Your task to perform on an android device: Clear the cart on newegg. Search for "dell alienware" on newegg, select the first entry, and add it to the cart. Image 0: 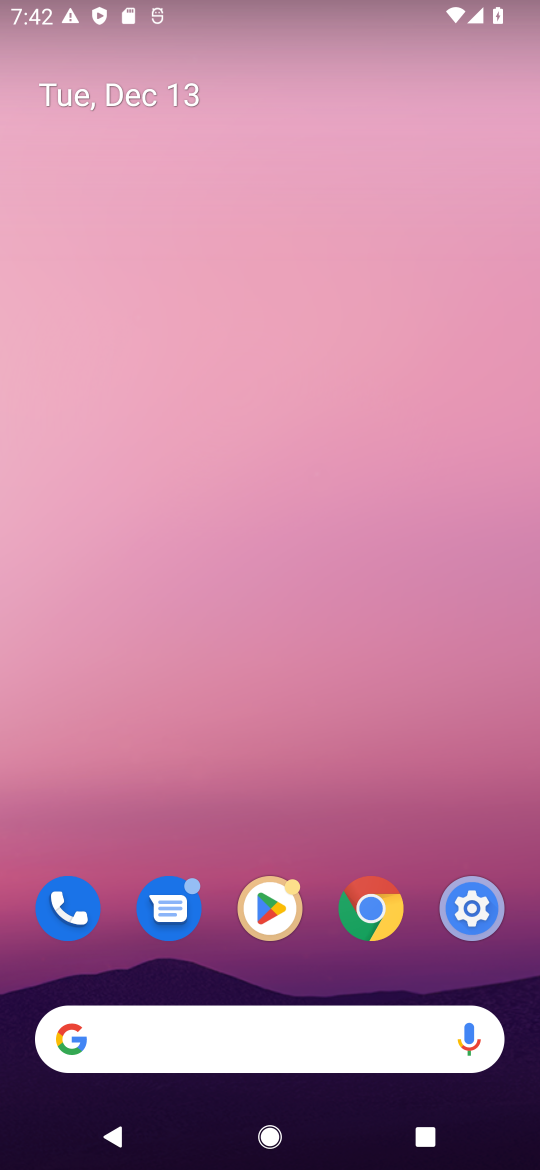
Step 0: press home button
Your task to perform on an android device: Clear the cart on newegg. Search for "dell alienware" on newegg, select the first entry, and add it to the cart. Image 1: 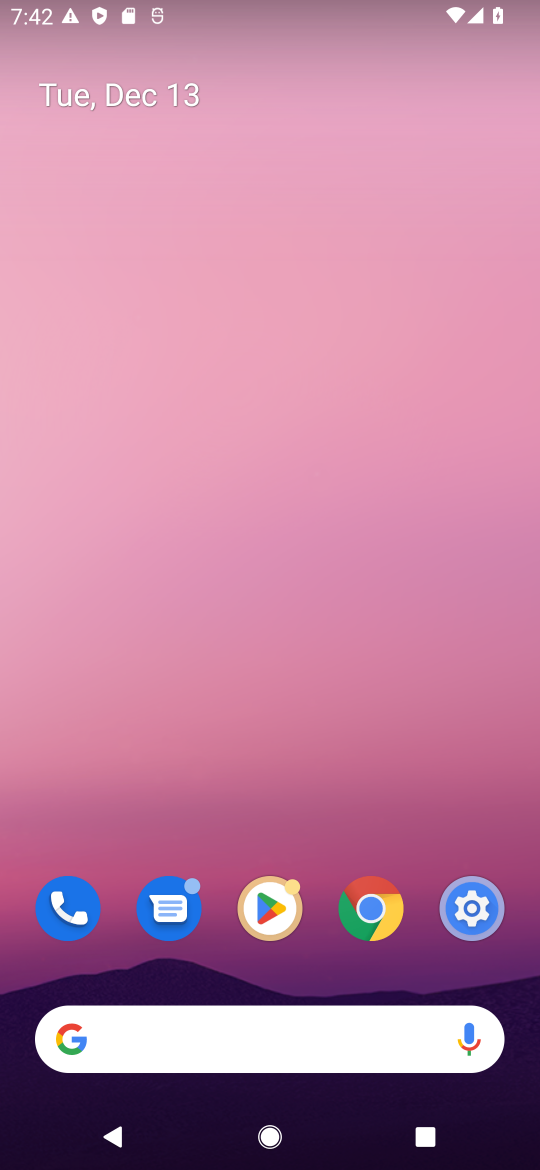
Step 1: click (104, 1036)
Your task to perform on an android device: Clear the cart on newegg. Search for "dell alienware" on newegg, select the first entry, and add it to the cart. Image 2: 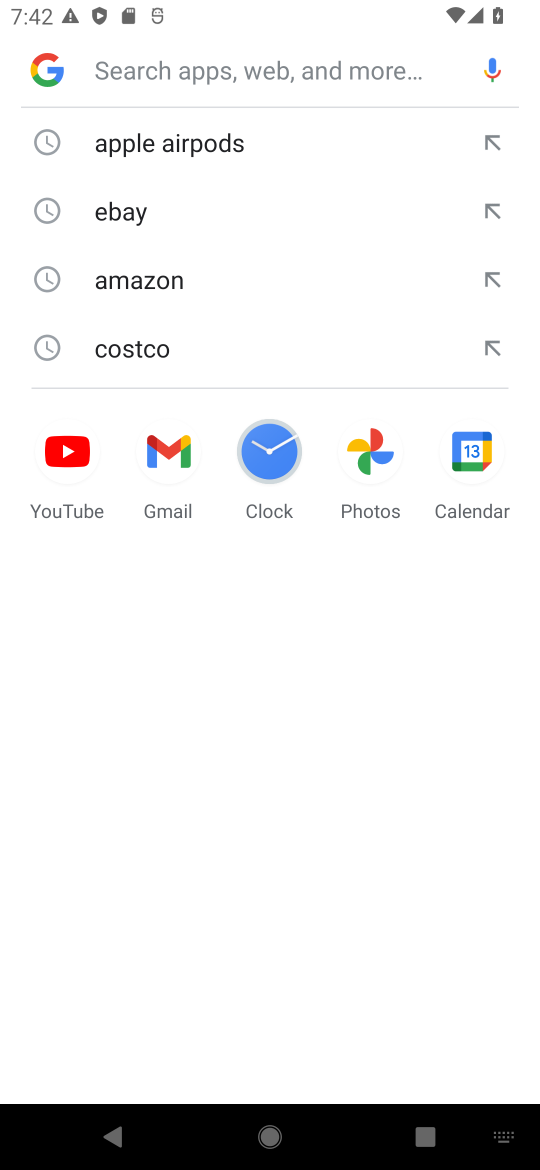
Step 2: type "newegg"
Your task to perform on an android device: Clear the cart on newegg. Search for "dell alienware" on newegg, select the first entry, and add it to the cart. Image 3: 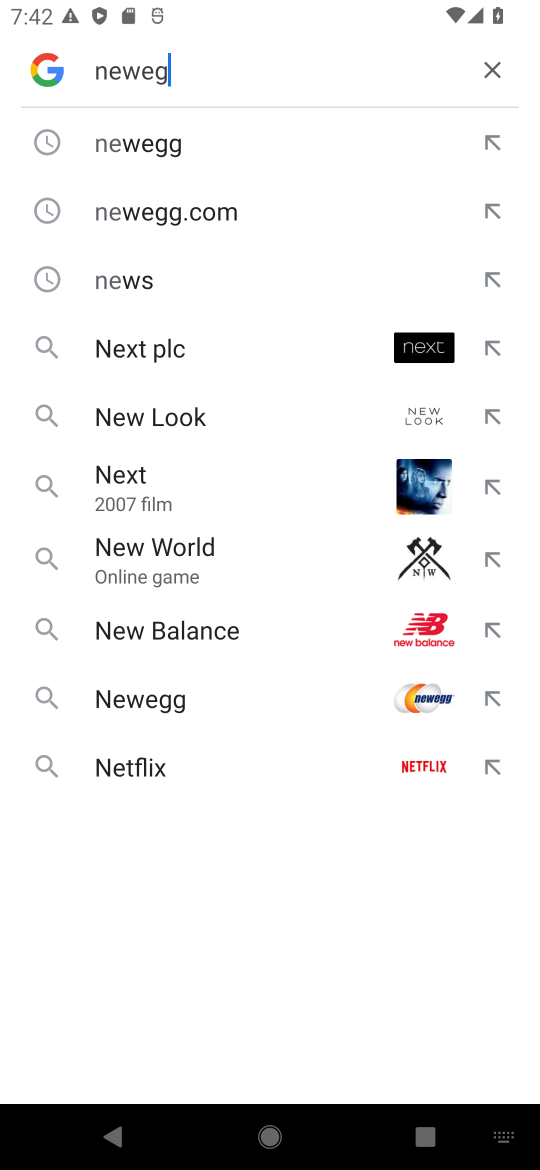
Step 3: press enter
Your task to perform on an android device: Clear the cart on newegg. Search for "dell alienware" on newegg, select the first entry, and add it to the cart. Image 4: 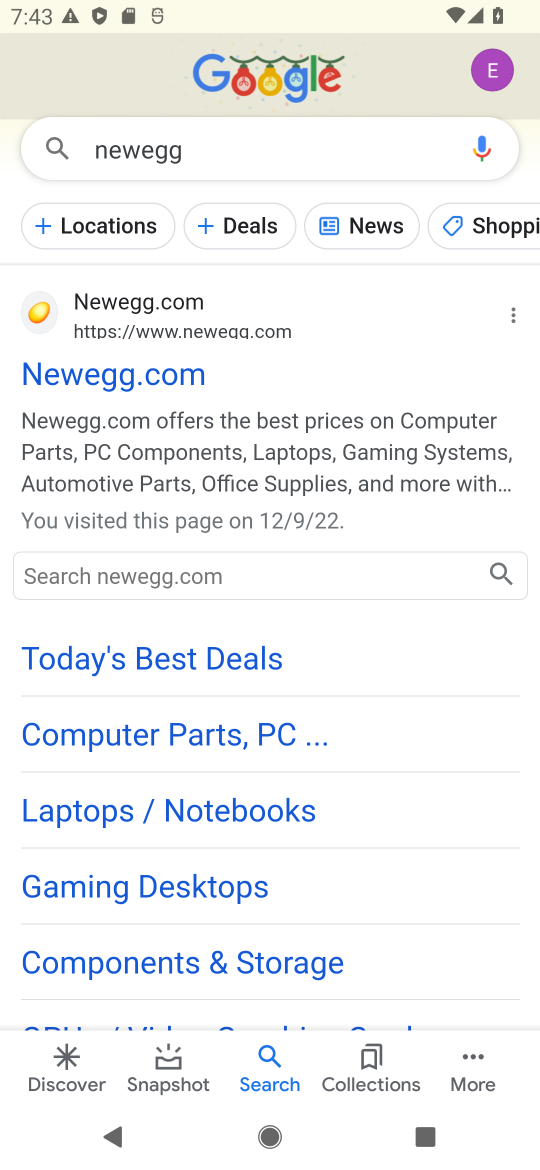
Step 4: click (132, 364)
Your task to perform on an android device: Clear the cart on newegg. Search for "dell alienware" on newegg, select the first entry, and add it to the cart. Image 5: 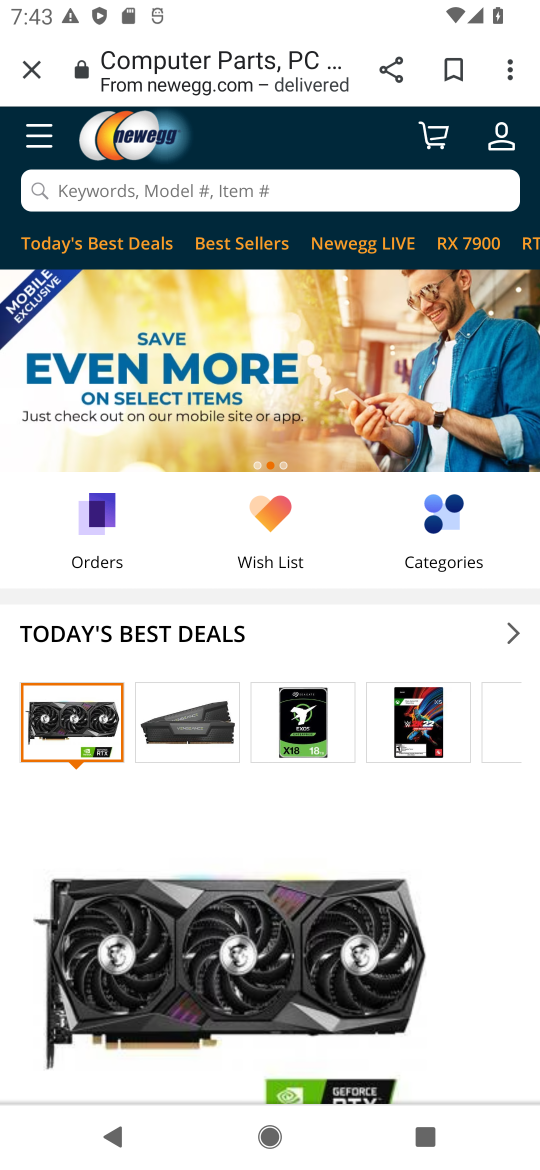
Step 5: click (426, 134)
Your task to perform on an android device: Clear the cart on newegg. Search for "dell alienware" on newegg, select the first entry, and add it to the cart. Image 6: 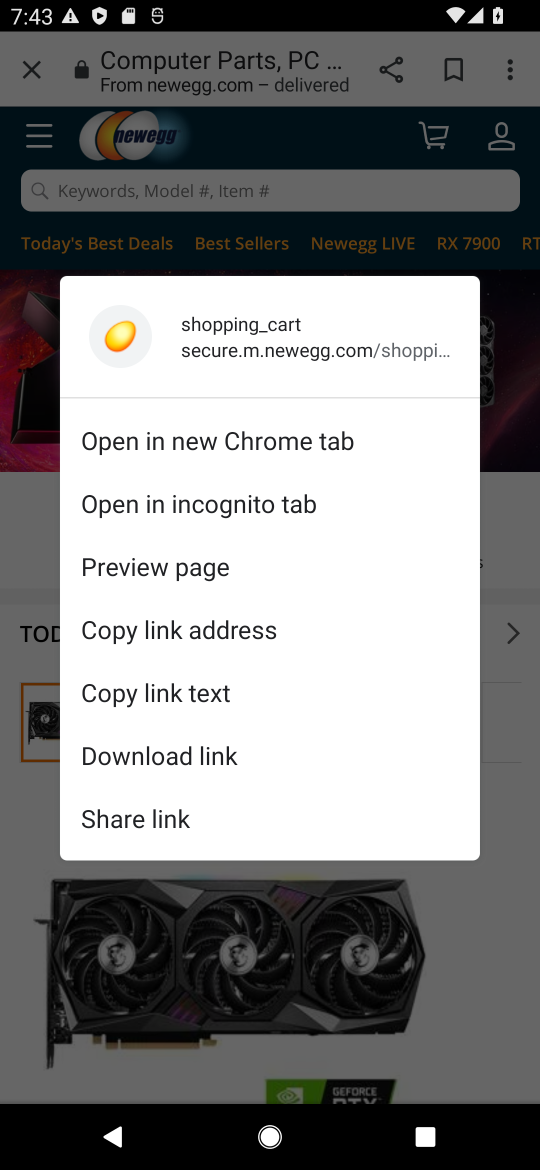
Step 6: click (514, 735)
Your task to perform on an android device: Clear the cart on newegg. Search for "dell alienware" on newegg, select the first entry, and add it to the cart. Image 7: 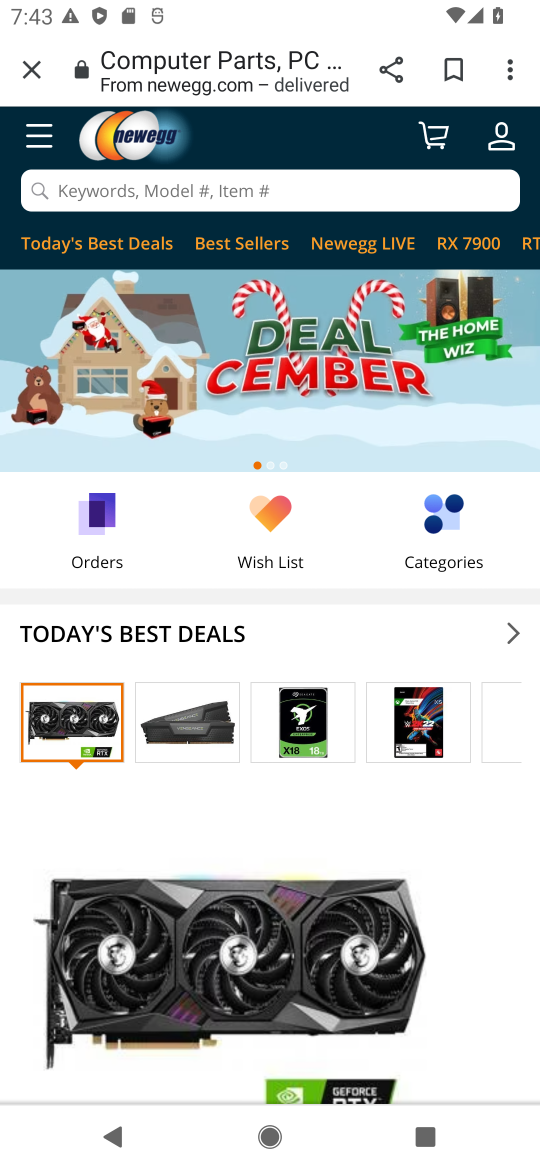
Step 7: click (439, 129)
Your task to perform on an android device: Clear the cart on newegg. Search for "dell alienware" on newegg, select the first entry, and add it to the cart. Image 8: 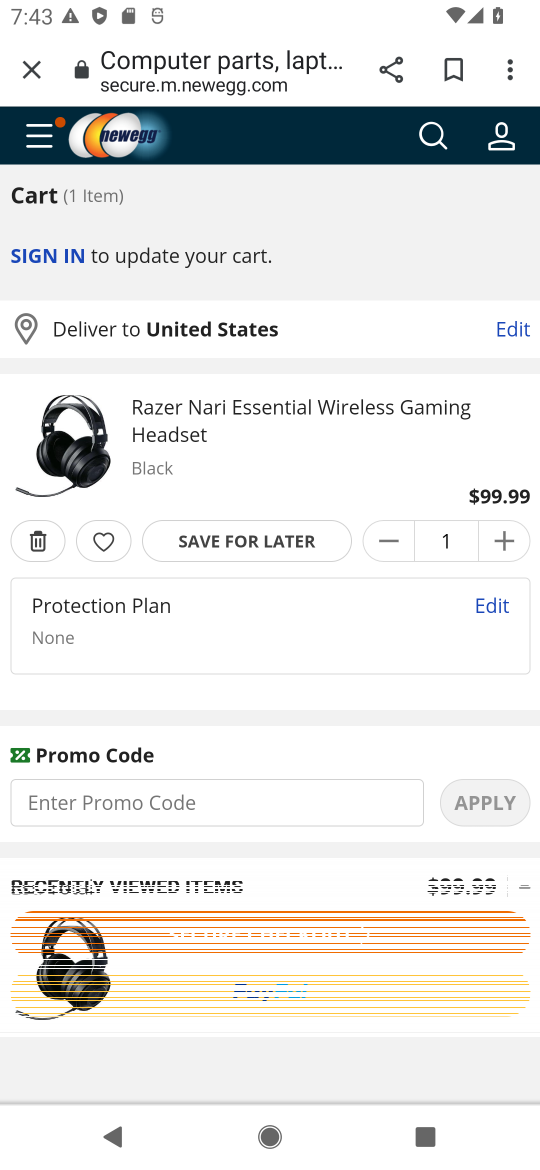
Step 8: click (37, 531)
Your task to perform on an android device: Clear the cart on newegg. Search for "dell alienware" on newegg, select the first entry, and add it to the cart. Image 9: 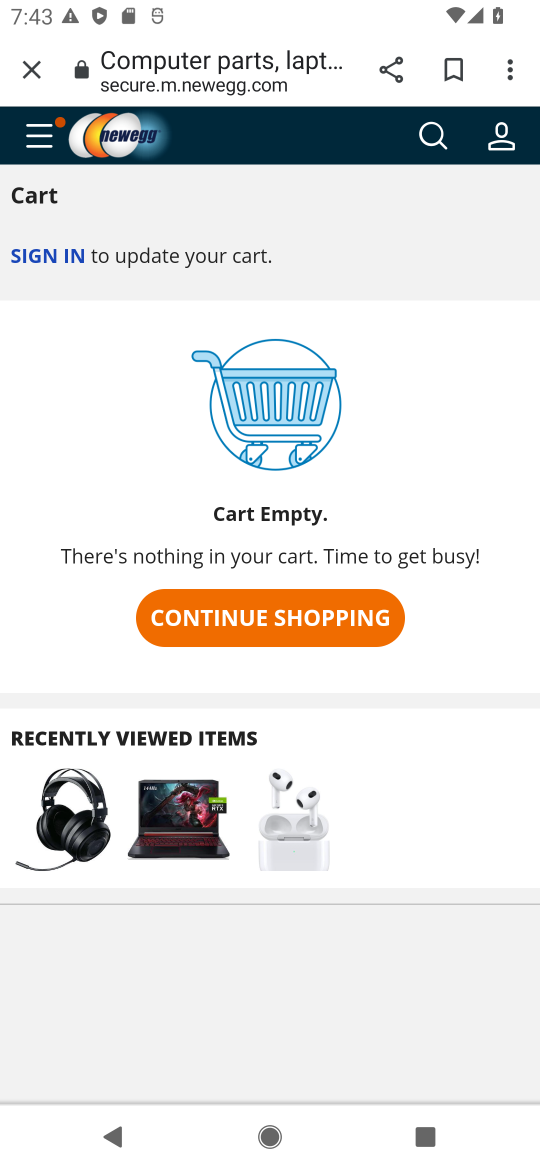
Step 9: click (412, 131)
Your task to perform on an android device: Clear the cart on newegg. Search for "dell alienware" on newegg, select the first entry, and add it to the cart. Image 10: 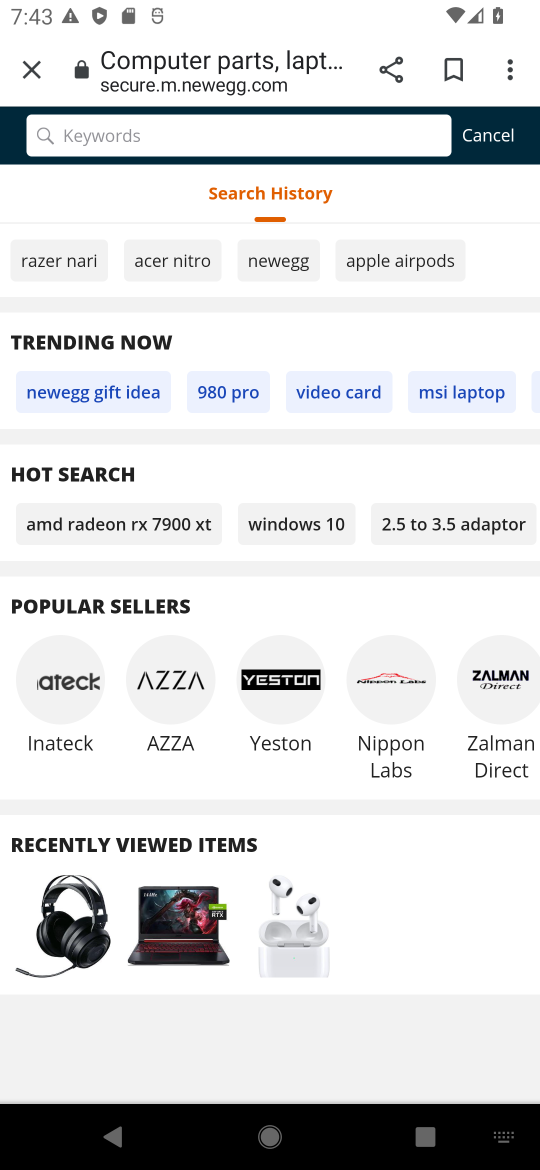
Step 10: type "dell alienware"
Your task to perform on an android device: Clear the cart on newegg. Search for "dell alienware" on newegg, select the first entry, and add it to the cart. Image 11: 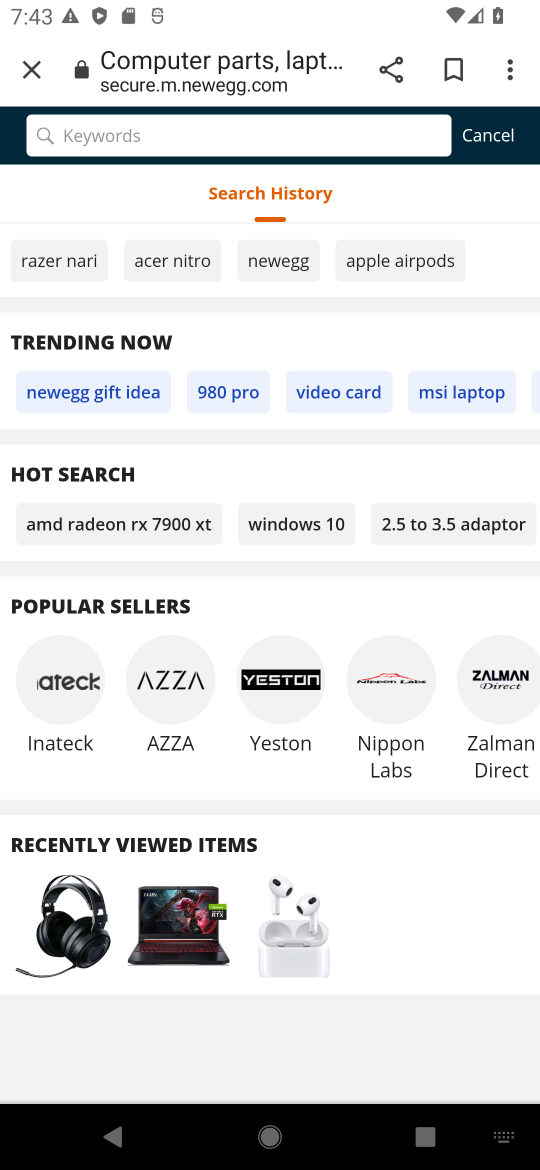
Step 11: press enter
Your task to perform on an android device: Clear the cart on newegg. Search for "dell alienware" on newegg, select the first entry, and add it to the cart. Image 12: 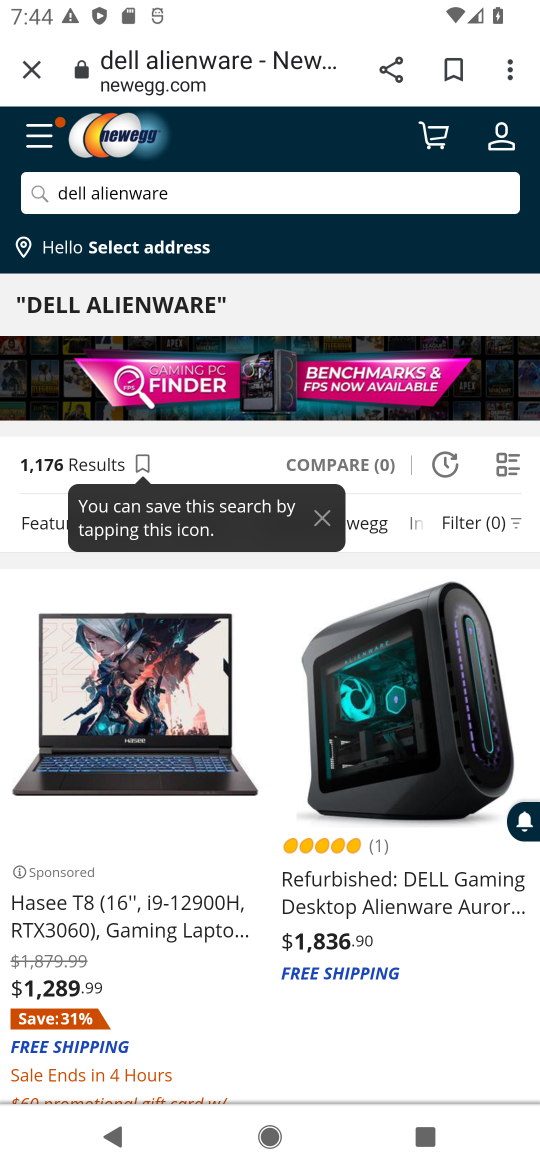
Step 12: drag from (336, 940) to (374, 529)
Your task to perform on an android device: Clear the cart on newegg. Search for "dell alienware" on newegg, select the first entry, and add it to the cart. Image 13: 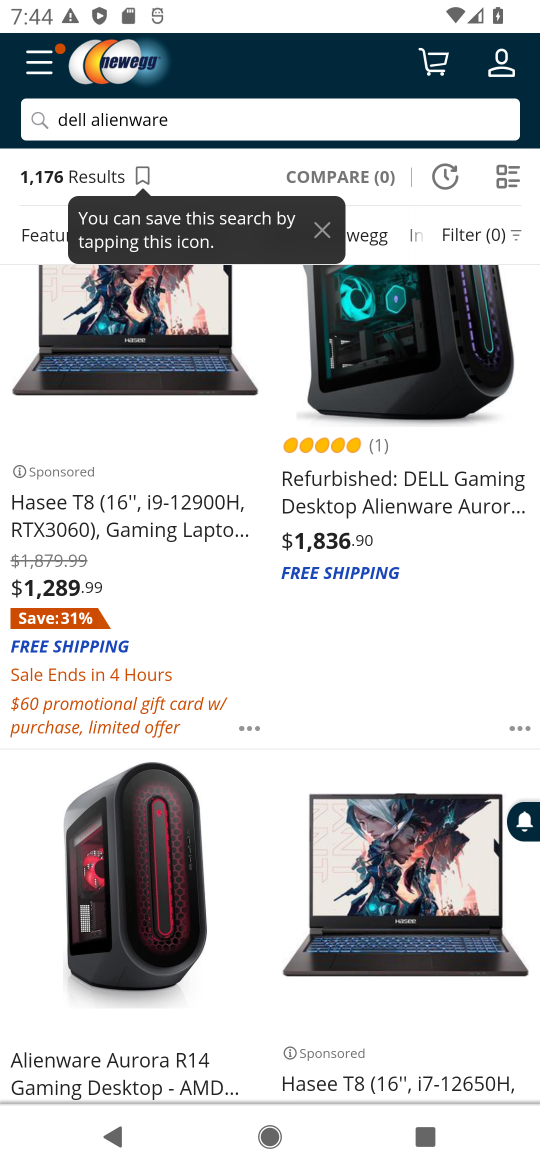
Step 13: drag from (272, 1019) to (300, 489)
Your task to perform on an android device: Clear the cart on newegg. Search for "dell alienware" on newegg, select the first entry, and add it to the cart. Image 14: 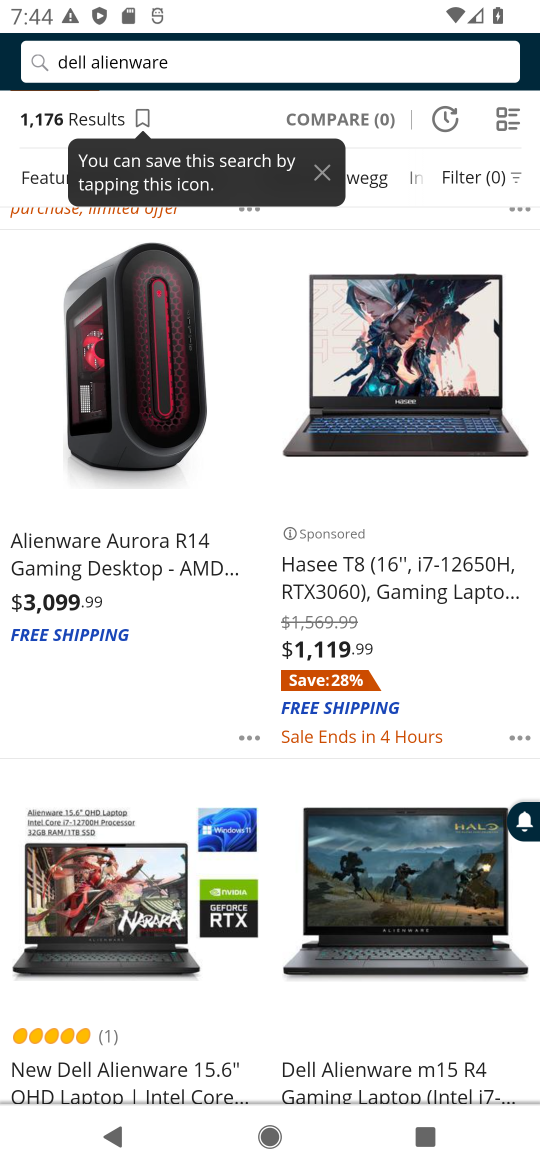
Step 14: click (118, 1070)
Your task to perform on an android device: Clear the cart on newegg. Search for "dell alienware" on newegg, select the first entry, and add it to the cart. Image 15: 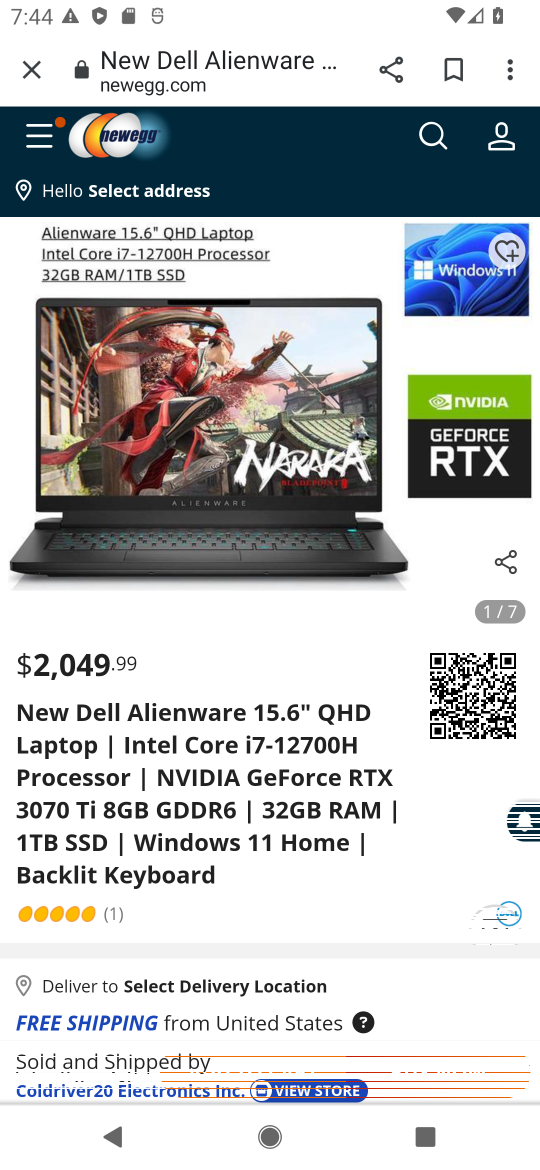
Step 15: drag from (208, 887) to (269, 442)
Your task to perform on an android device: Clear the cart on newegg. Search for "dell alienware" on newegg, select the first entry, and add it to the cart. Image 16: 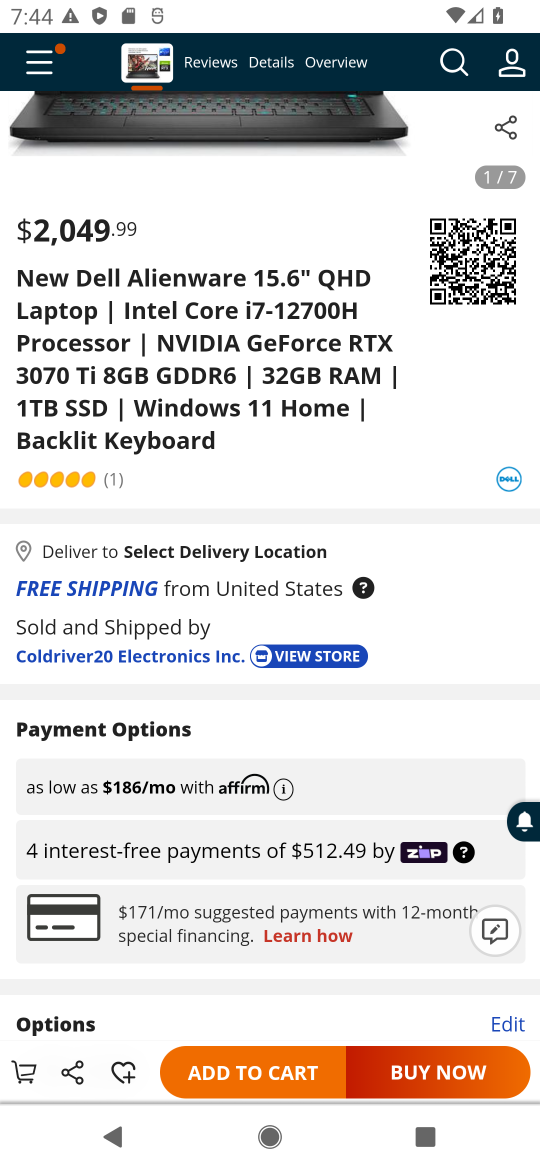
Step 16: click (213, 1067)
Your task to perform on an android device: Clear the cart on newegg. Search for "dell alienware" on newegg, select the first entry, and add it to the cart. Image 17: 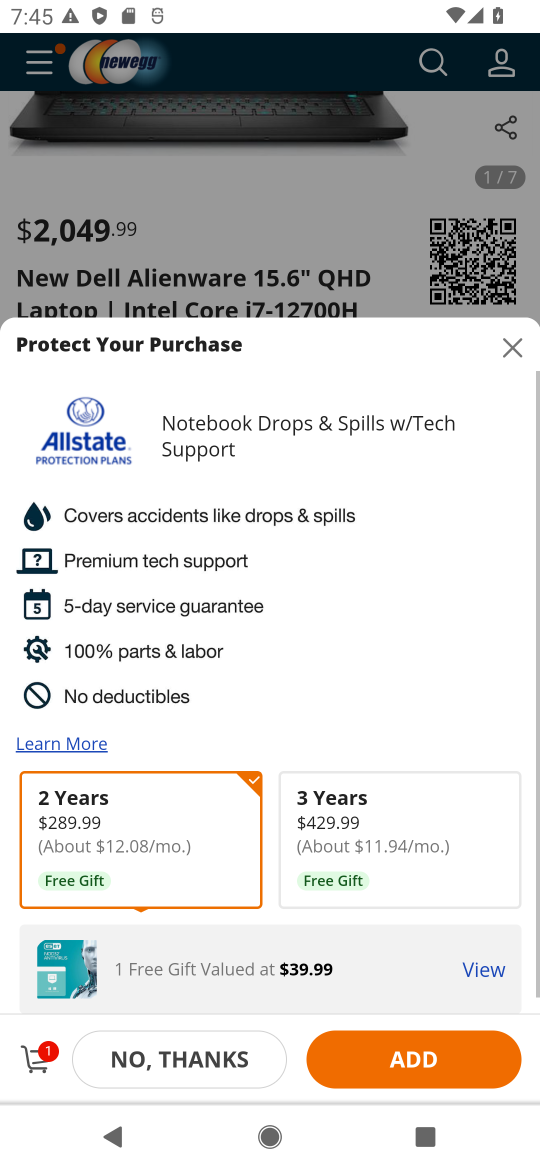
Step 17: task complete